Your task to perform on an android device: turn on data saver in the chrome app Image 0: 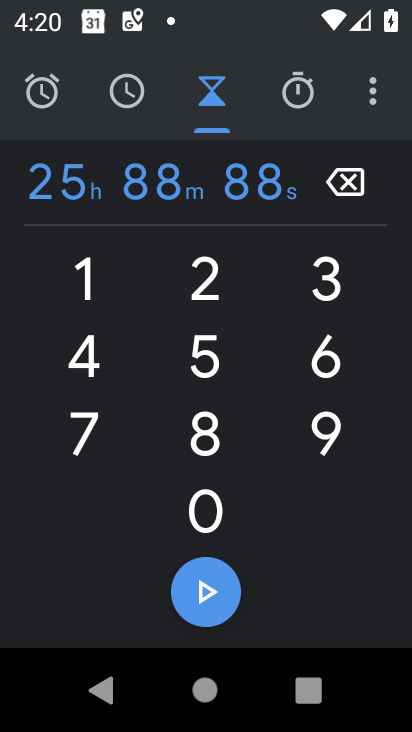
Step 0: press home button
Your task to perform on an android device: turn on data saver in the chrome app Image 1: 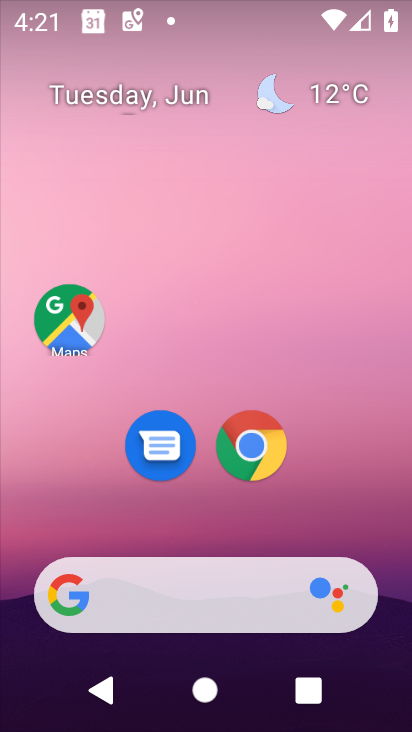
Step 1: drag from (340, 511) to (304, 3)
Your task to perform on an android device: turn on data saver in the chrome app Image 2: 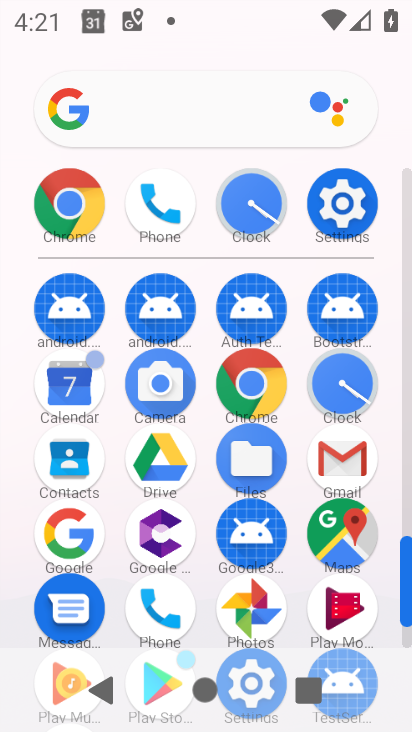
Step 2: click (80, 214)
Your task to perform on an android device: turn on data saver in the chrome app Image 3: 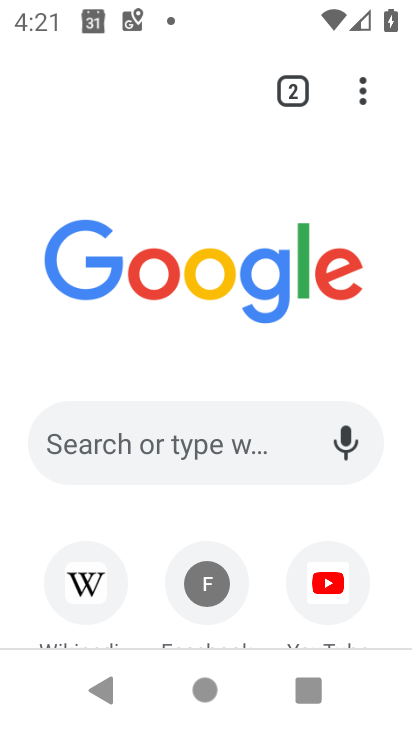
Step 3: drag from (369, 96) to (115, 443)
Your task to perform on an android device: turn on data saver in the chrome app Image 4: 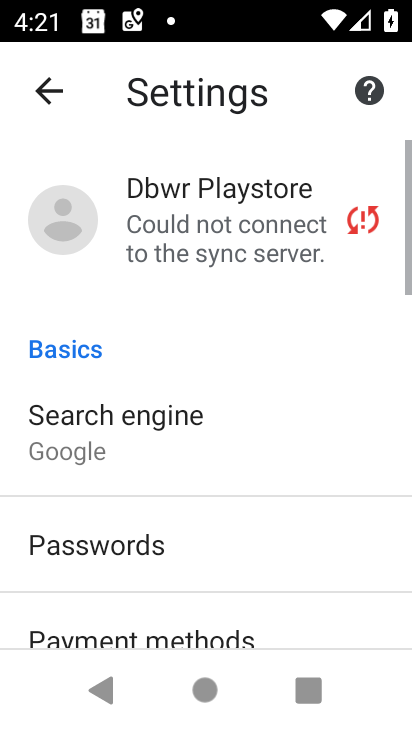
Step 4: drag from (164, 589) to (161, 163)
Your task to perform on an android device: turn on data saver in the chrome app Image 5: 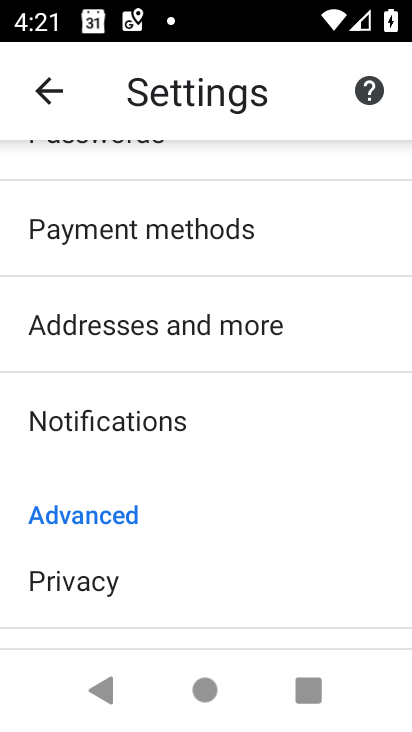
Step 5: drag from (158, 484) to (151, 102)
Your task to perform on an android device: turn on data saver in the chrome app Image 6: 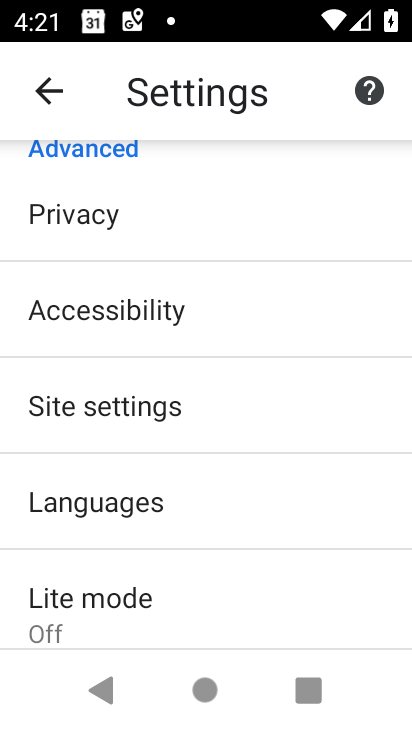
Step 6: drag from (112, 587) to (151, 155)
Your task to perform on an android device: turn on data saver in the chrome app Image 7: 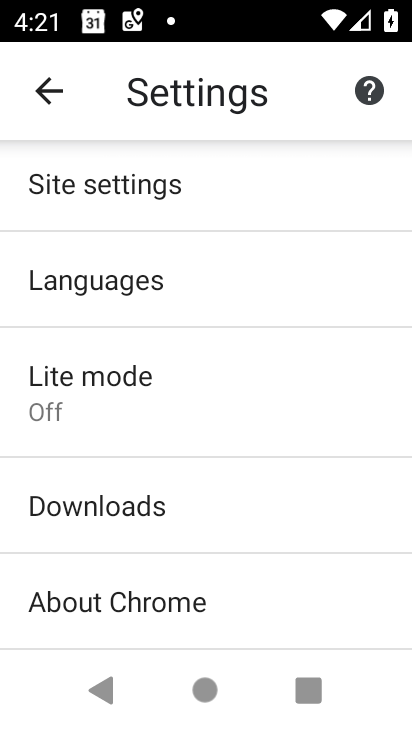
Step 7: click (113, 406)
Your task to perform on an android device: turn on data saver in the chrome app Image 8: 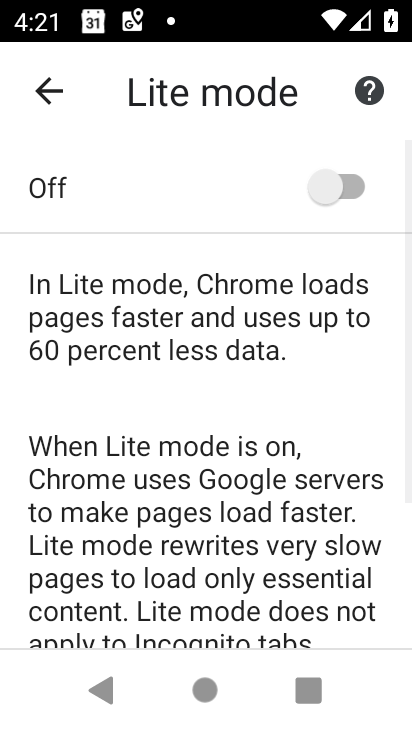
Step 8: click (338, 178)
Your task to perform on an android device: turn on data saver in the chrome app Image 9: 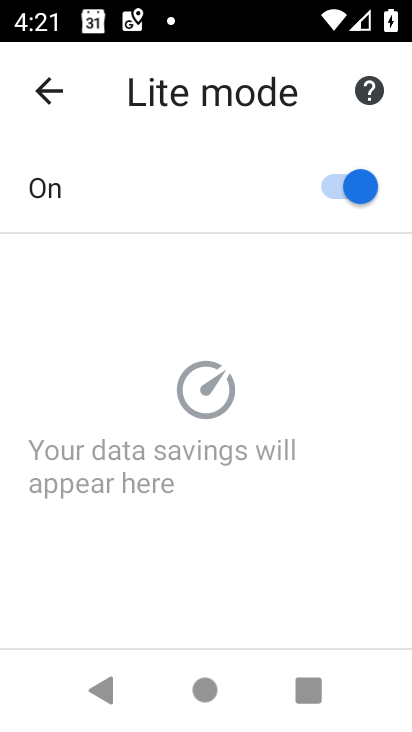
Step 9: task complete